Your task to perform on an android device: Go to Google Image 0: 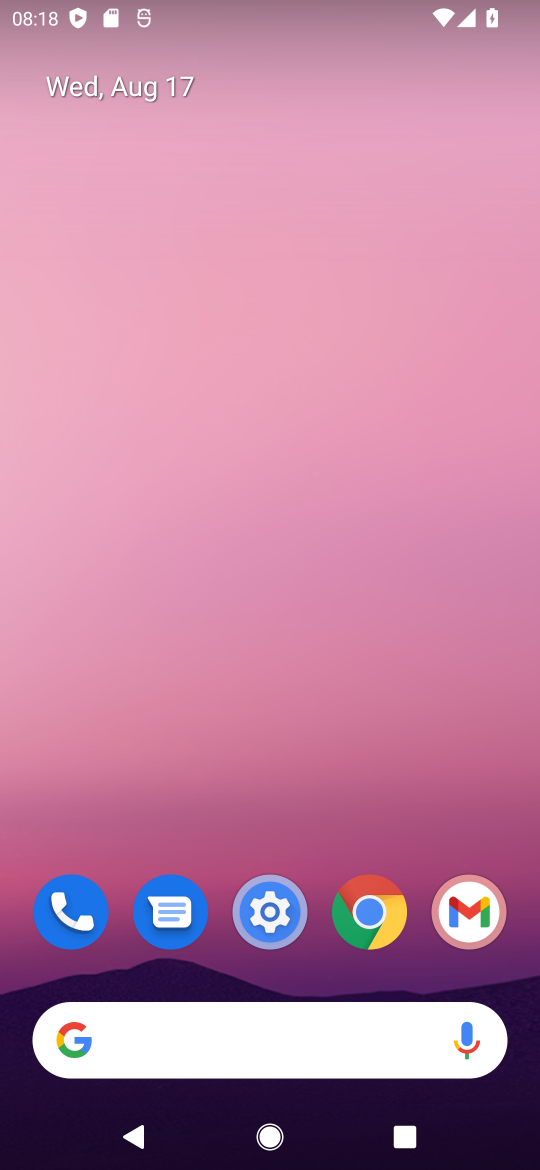
Step 0: drag from (346, 996) to (252, 201)
Your task to perform on an android device: Go to Google Image 1: 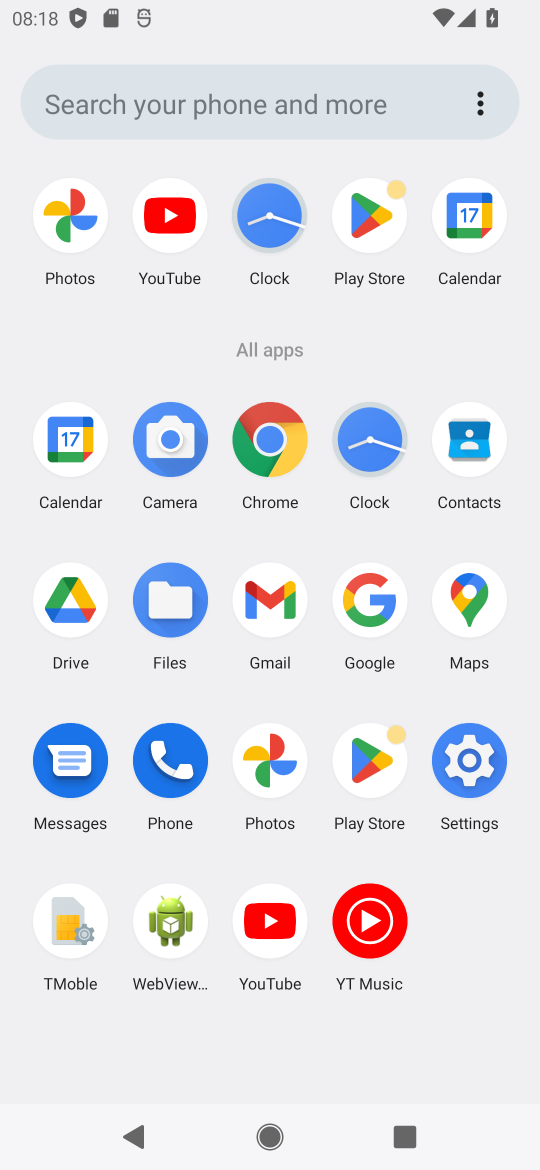
Step 1: click (384, 600)
Your task to perform on an android device: Go to Google Image 2: 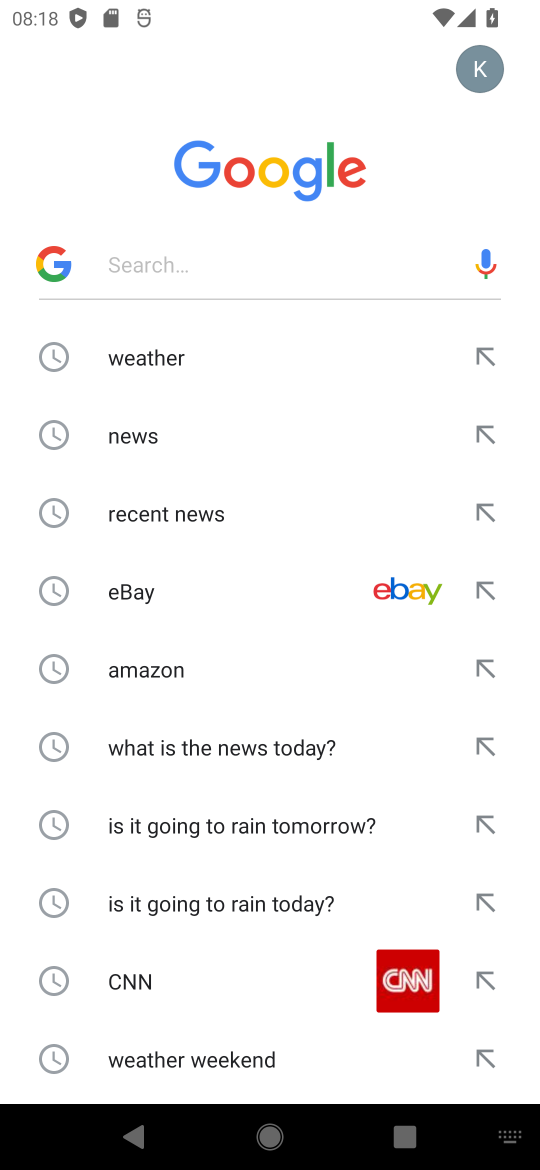
Step 2: task complete